Your task to perform on an android device: Open settings on Google Maps Image 0: 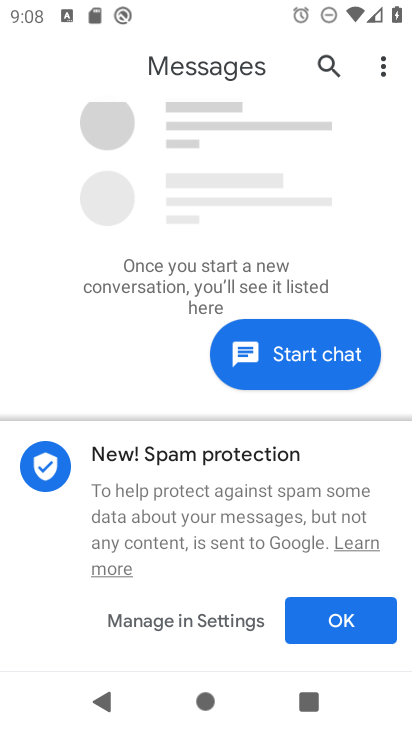
Step 0: press home button
Your task to perform on an android device: Open settings on Google Maps Image 1: 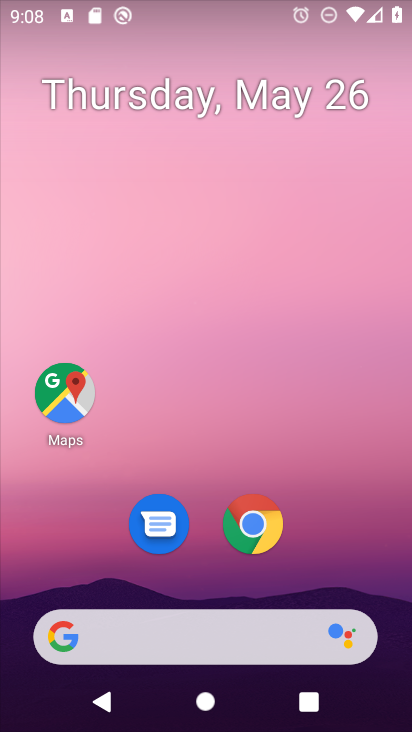
Step 1: click (57, 395)
Your task to perform on an android device: Open settings on Google Maps Image 2: 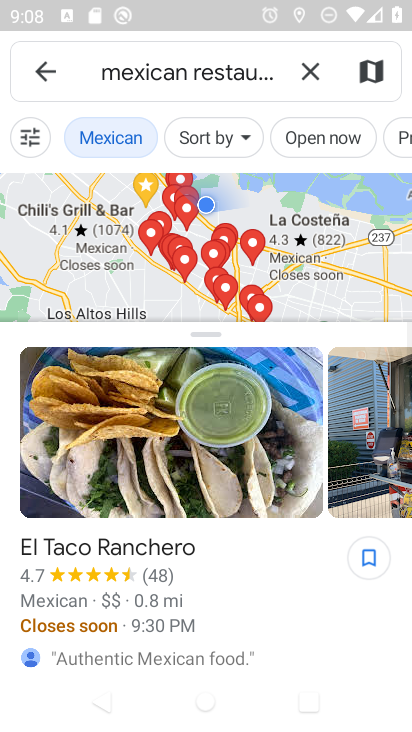
Step 2: click (45, 69)
Your task to perform on an android device: Open settings on Google Maps Image 3: 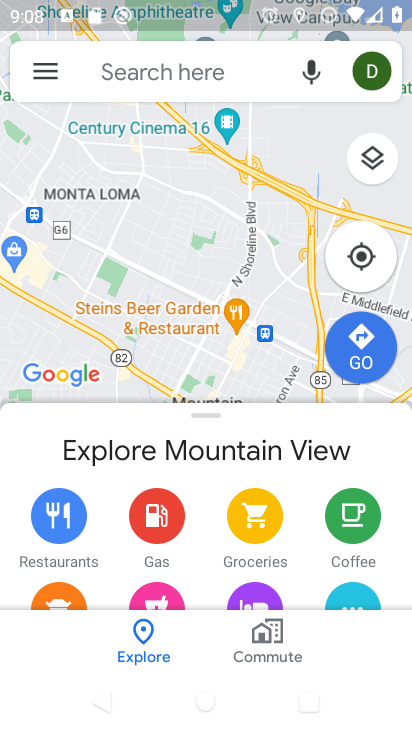
Step 3: click (45, 71)
Your task to perform on an android device: Open settings on Google Maps Image 4: 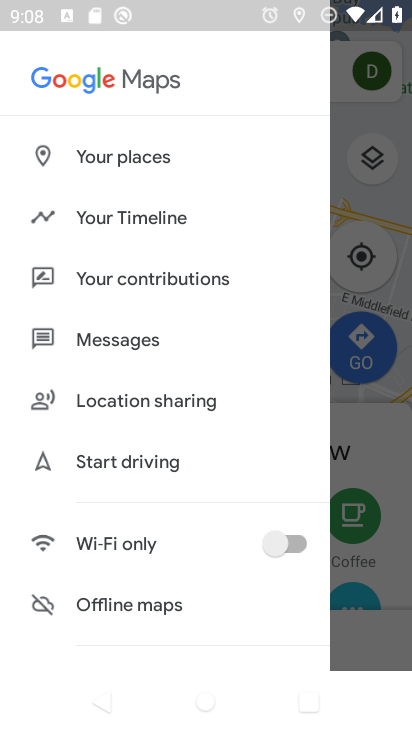
Step 4: drag from (137, 417) to (182, 118)
Your task to perform on an android device: Open settings on Google Maps Image 5: 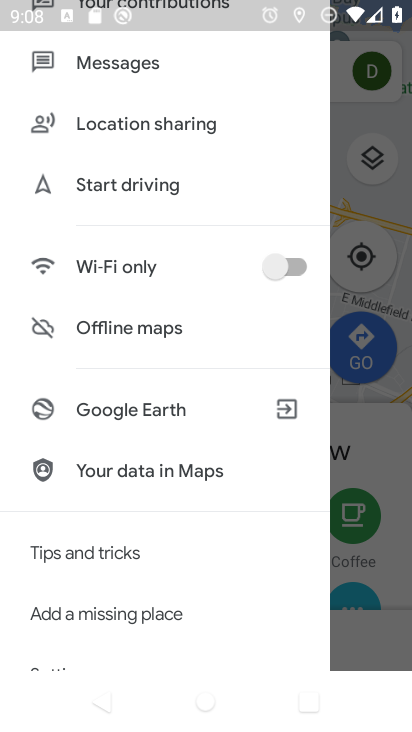
Step 5: drag from (128, 354) to (164, 127)
Your task to perform on an android device: Open settings on Google Maps Image 6: 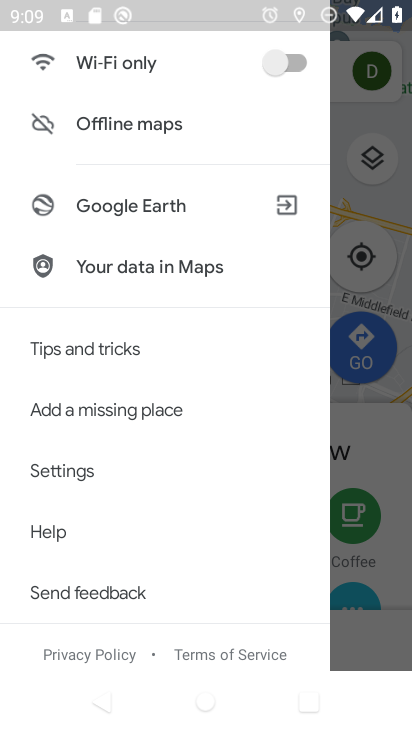
Step 6: click (87, 464)
Your task to perform on an android device: Open settings on Google Maps Image 7: 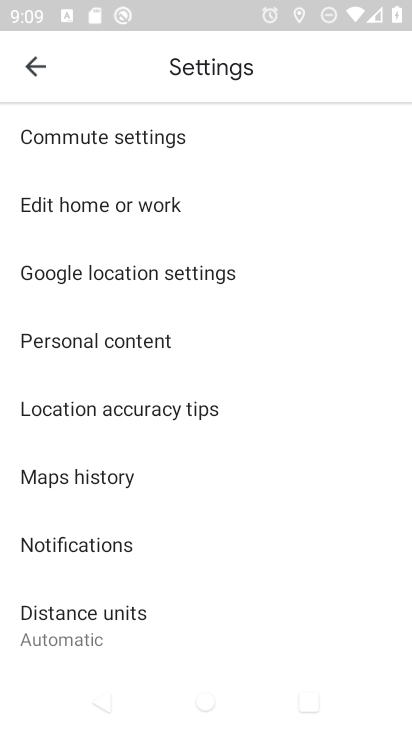
Step 7: task complete